Your task to perform on an android device: change timer sound Image 0: 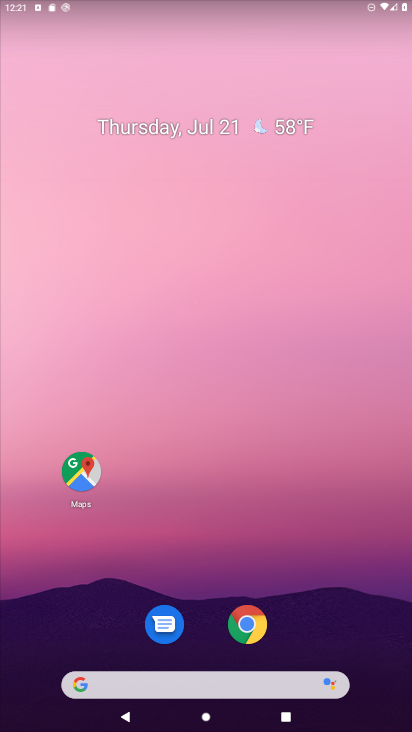
Step 0: drag from (205, 587) to (206, 197)
Your task to perform on an android device: change timer sound Image 1: 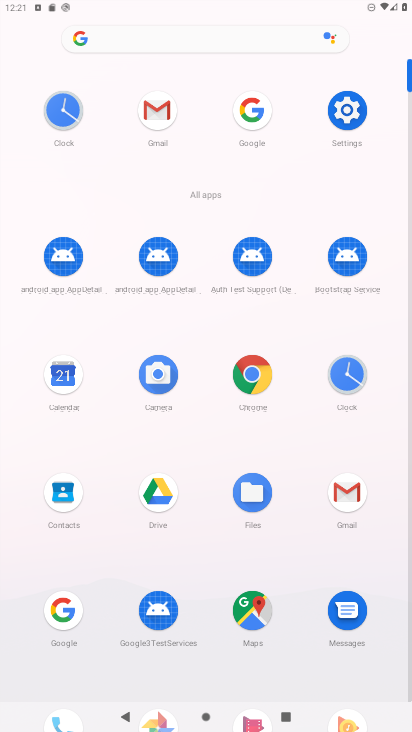
Step 1: click (341, 364)
Your task to perform on an android device: change timer sound Image 2: 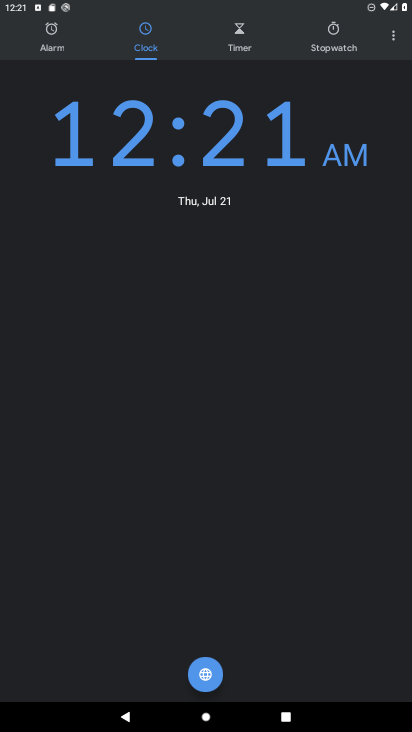
Step 2: click (400, 39)
Your task to perform on an android device: change timer sound Image 3: 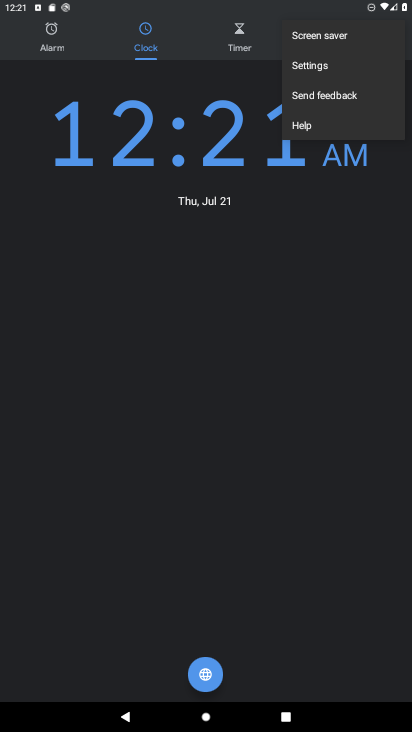
Step 3: click (350, 68)
Your task to perform on an android device: change timer sound Image 4: 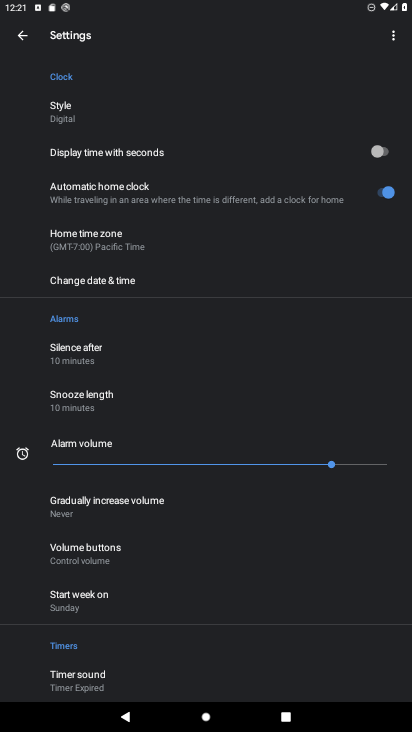
Step 4: drag from (176, 612) to (208, 321)
Your task to perform on an android device: change timer sound Image 5: 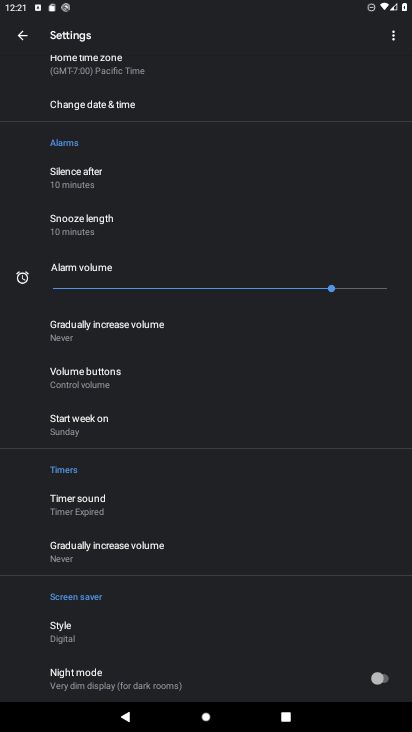
Step 5: click (105, 522)
Your task to perform on an android device: change timer sound Image 6: 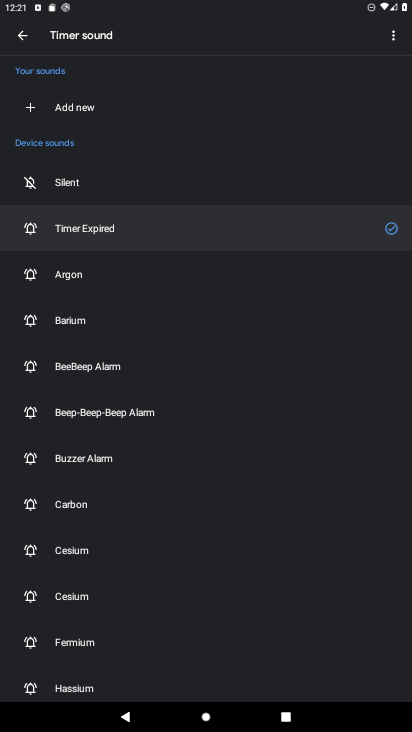
Step 6: click (105, 466)
Your task to perform on an android device: change timer sound Image 7: 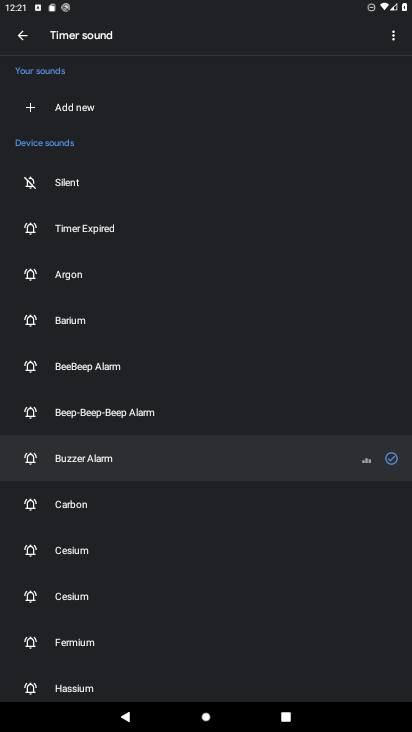
Step 7: task complete